Your task to perform on an android device: Add "logitech g pro" to the cart on target.com Image 0: 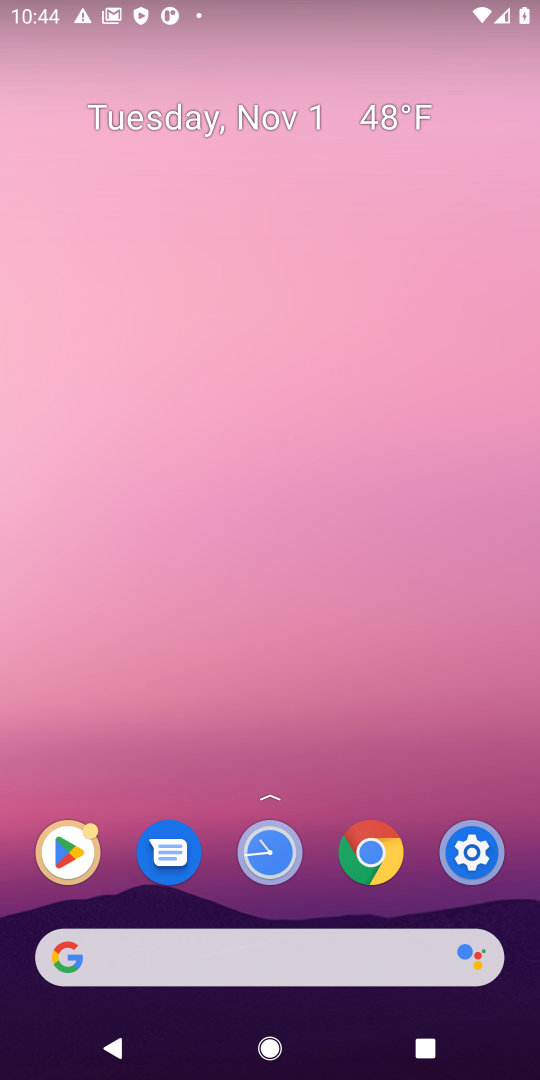
Step 0: click (221, 947)
Your task to perform on an android device: Add "logitech g pro" to the cart on target.com Image 1: 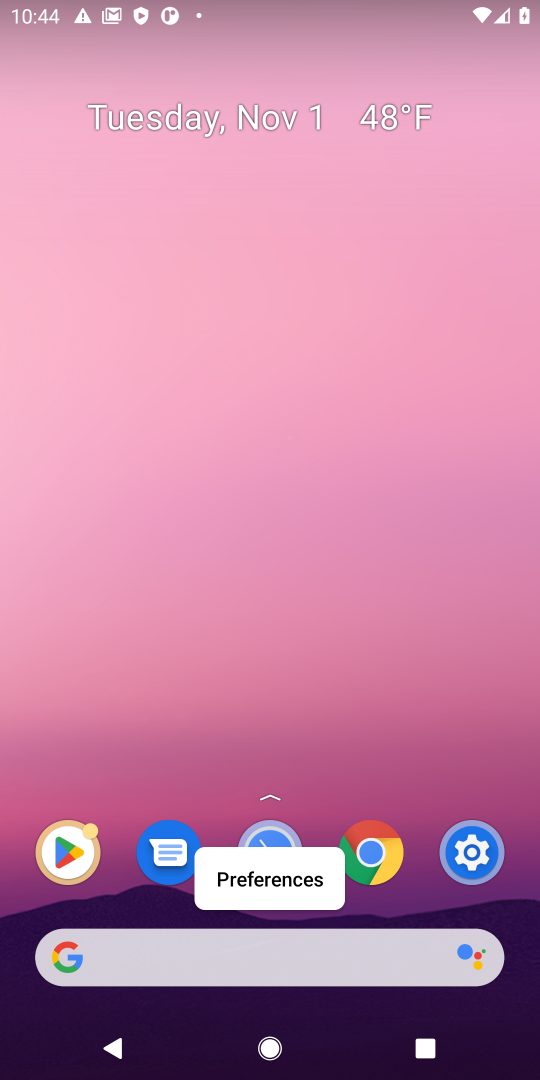
Step 1: click (117, 963)
Your task to perform on an android device: Add "logitech g pro" to the cart on target.com Image 2: 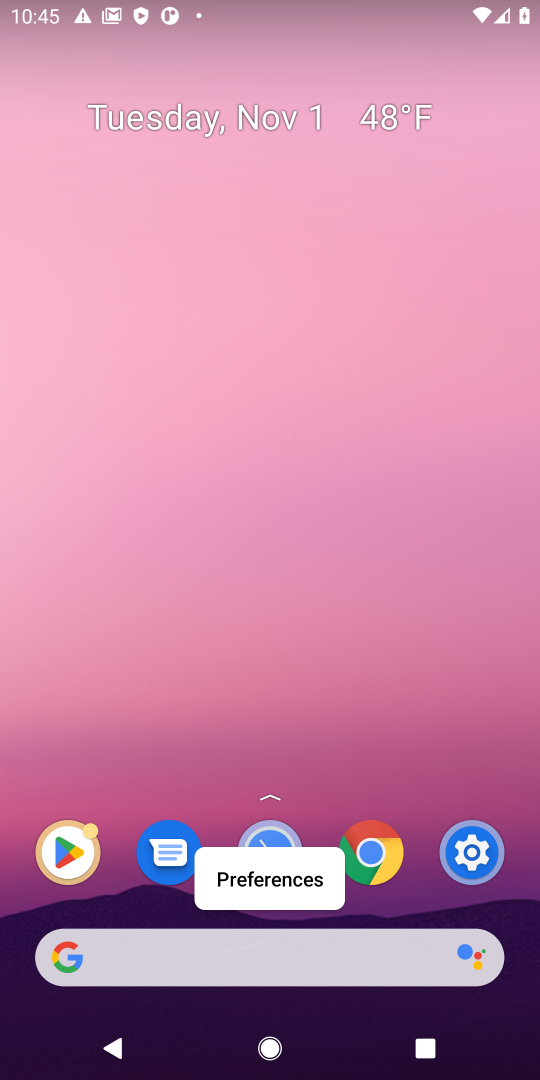
Step 2: click (347, 958)
Your task to perform on an android device: Add "logitech g pro" to the cart on target.com Image 3: 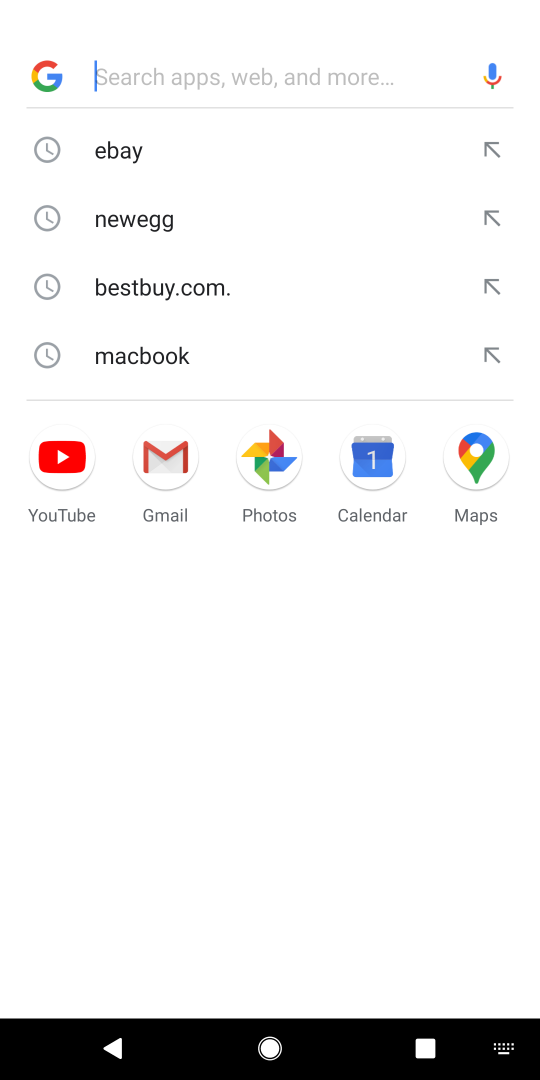
Step 3: click (347, 958)
Your task to perform on an android device: Add "logitech g pro" to the cart on target.com Image 4: 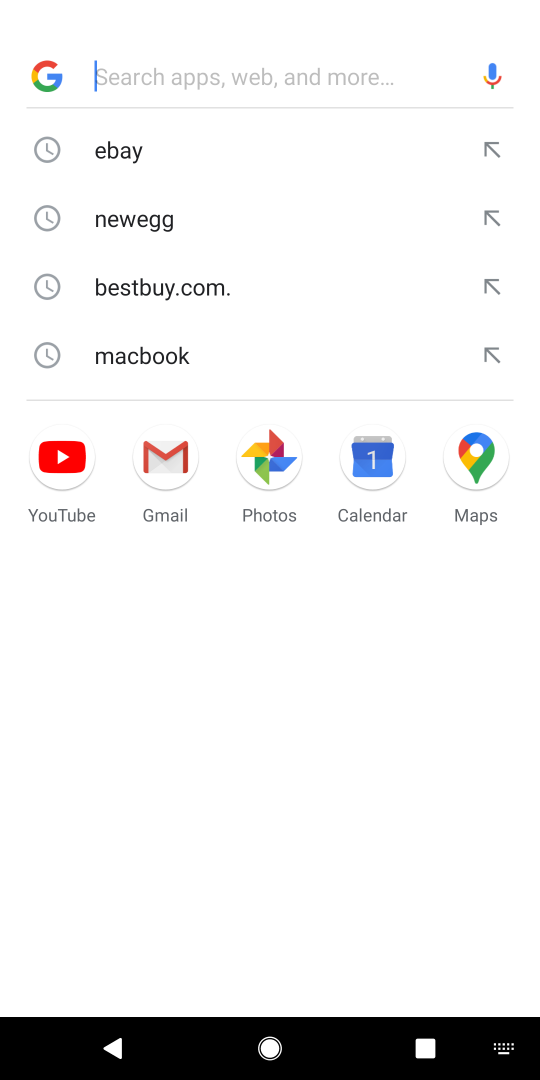
Step 4: type "target.com"
Your task to perform on an android device: Add "logitech g pro" to the cart on target.com Image 5: 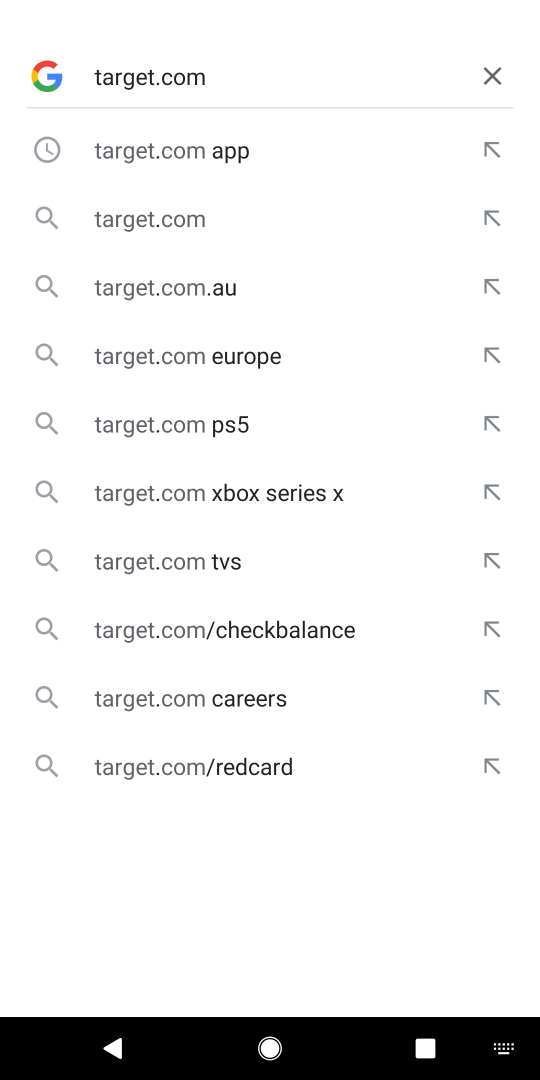
Step 5: type ""
Your task to perform on an android device: Add "logitech g pro" to the cart on target.com Image 6: 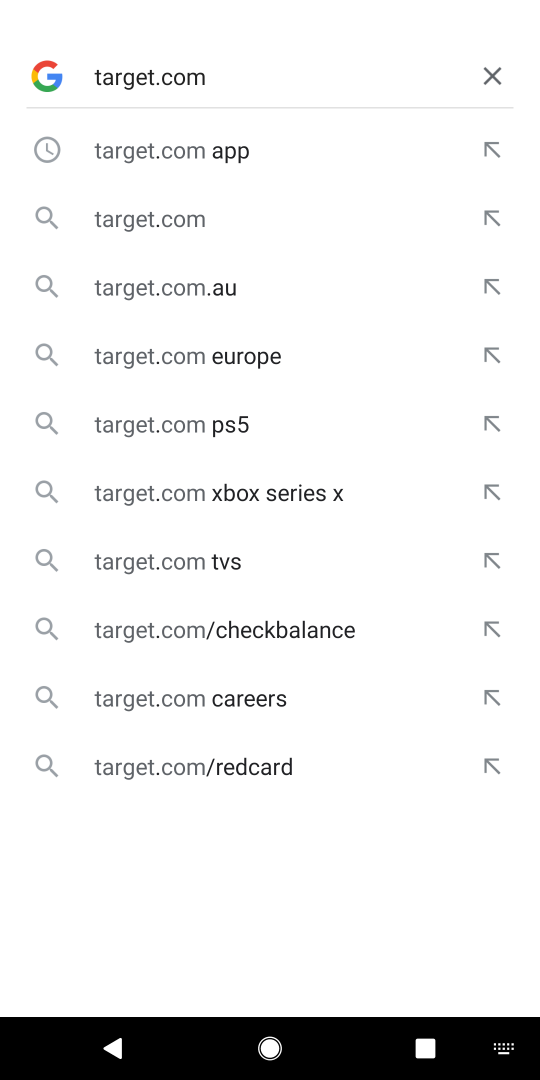
Step 6: press enter
Your task to perform on an android device: Add "logitech g pro" to the cart on target.com Image 7: 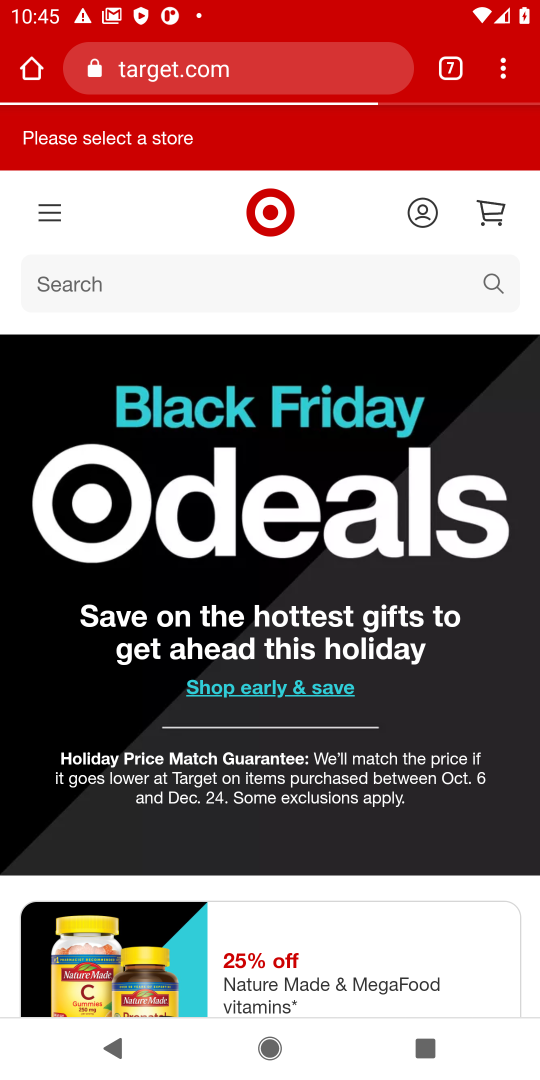
Step 7: click (285, 308)
Your task to perform on an android device: Add "logitech g pro" to the cart on target.com Image 8: 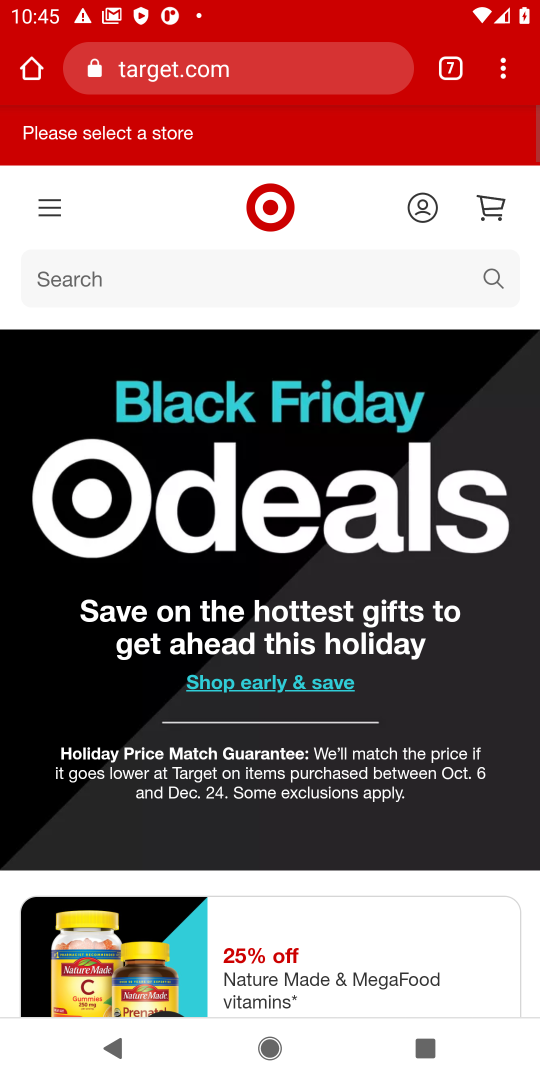
Step 8: click (277, 288)
Your task to perform on an android device: Add "logitech g pro" to the cart on target.com Image 9: 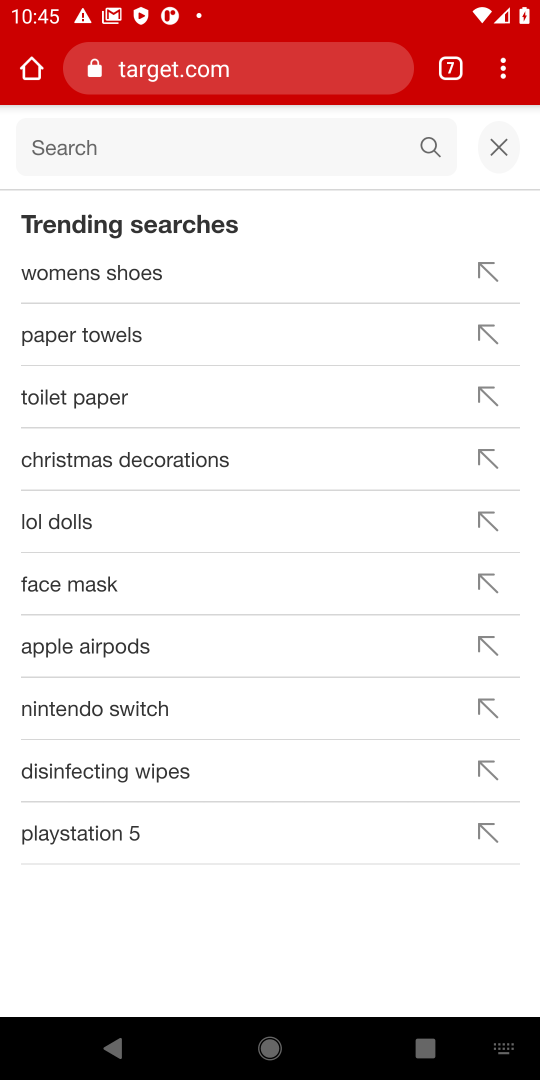
Step 9: type "logitech g pro"
Your task to perform on an android device: Add "logitech g pro" to the cart on target.com Image 10: 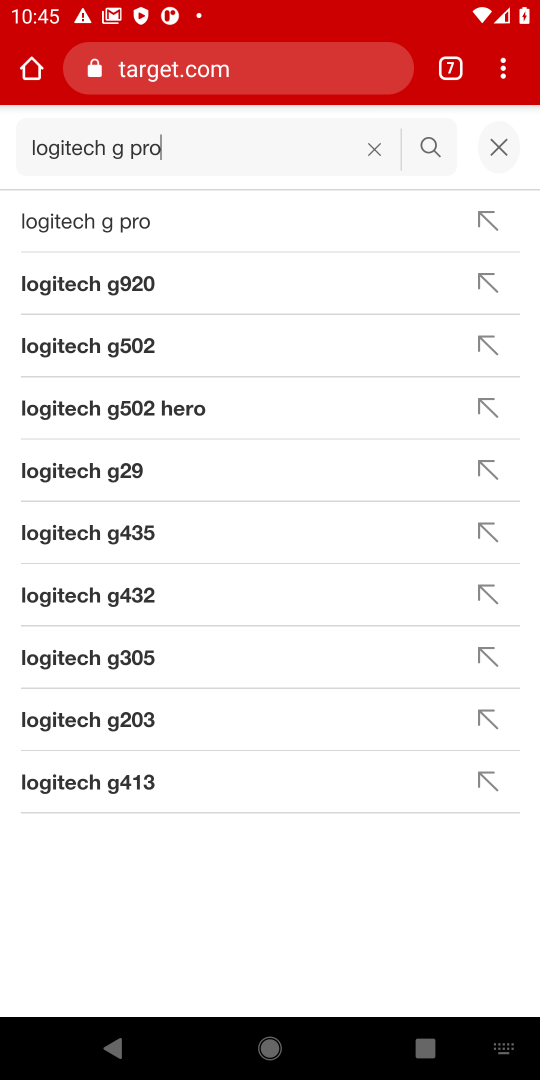
Step 10: type ""
Your task to perform on an android device: Add "logitech g pro" to the cart on target.com Image 11: 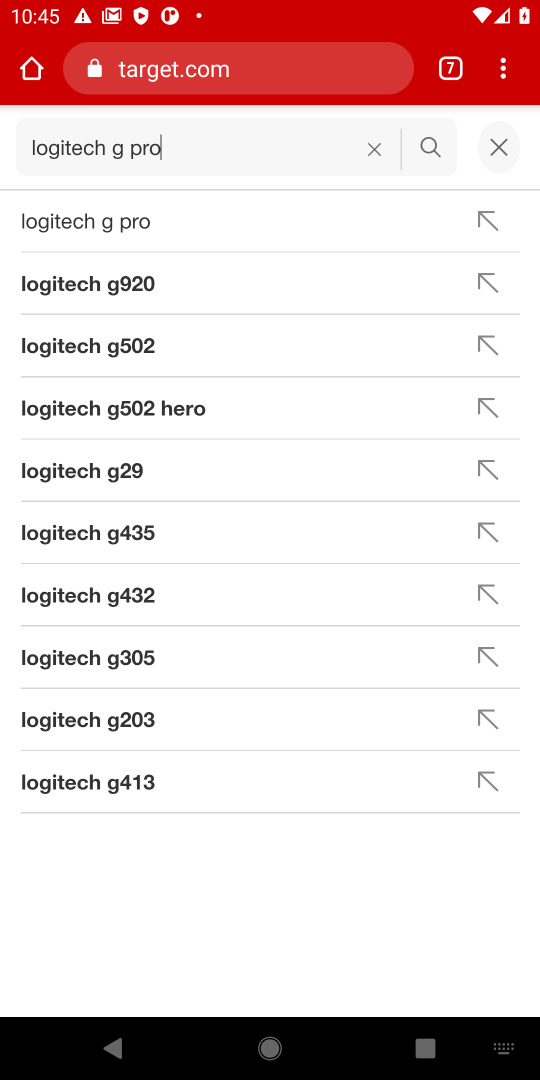
Step 11: press enter
Your task to perform on an android device: Add "logitech g pro" to the cart on target.com Image 12: 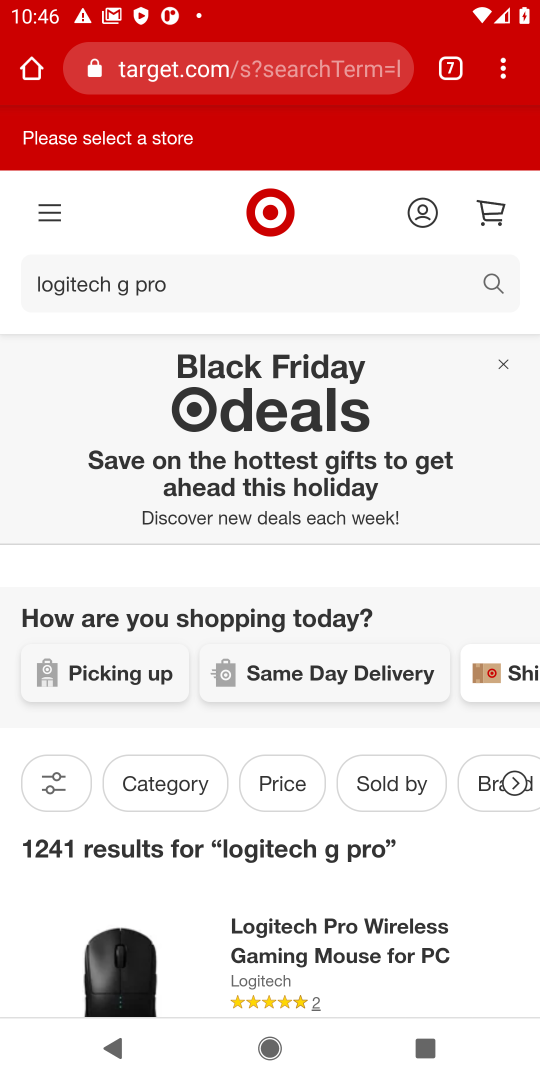
Step 12: drag from (477, 913) to (424, 510)
Your task to perform on an android device: Add "logitech g pro" to the cart on target.com Image 13: 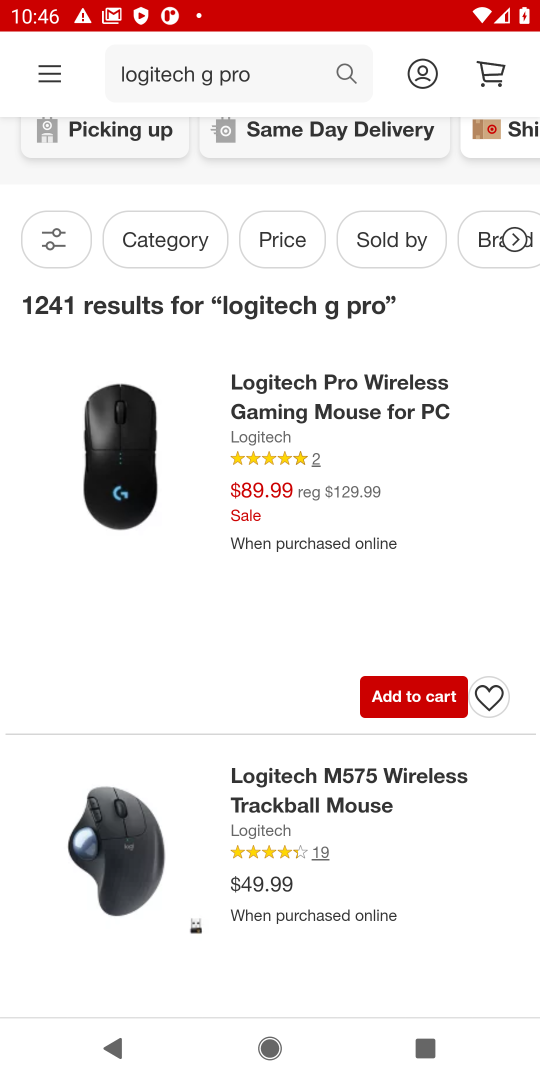
Step 13: click (304, 416)
Your task to perform on an android device: Add "logitech g pro" to the cart on target.com Image 14: 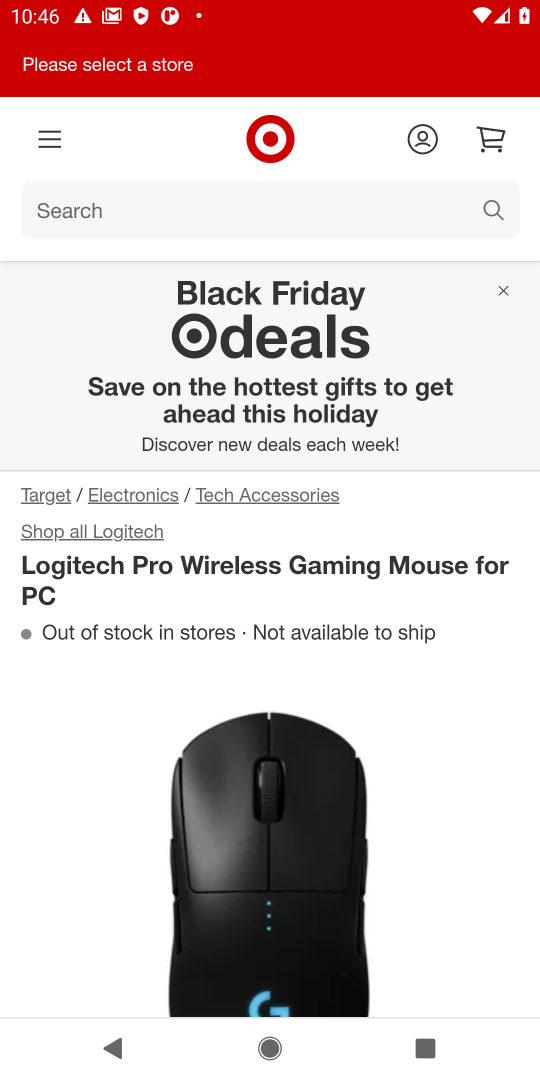
Step 14: drag from (510, 868) to (391, 381)
Your task to perform on an android device: Add "logitech g pro" to the cart on target.com Image 15: 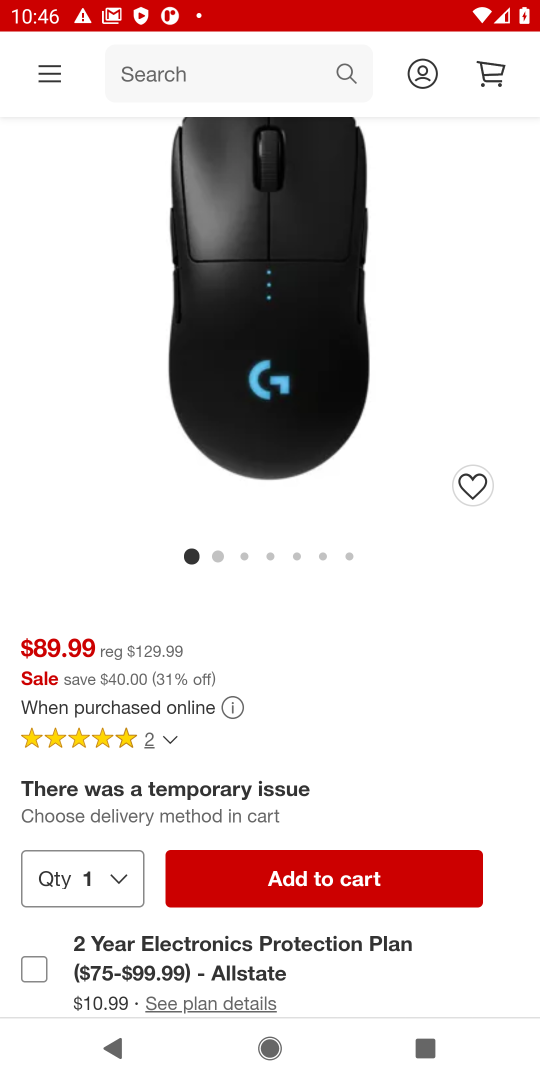
Step 15: click (327, 895)
Your task to perform on an android device: Add "logitech g pro" to the cart on target.com Image 16: 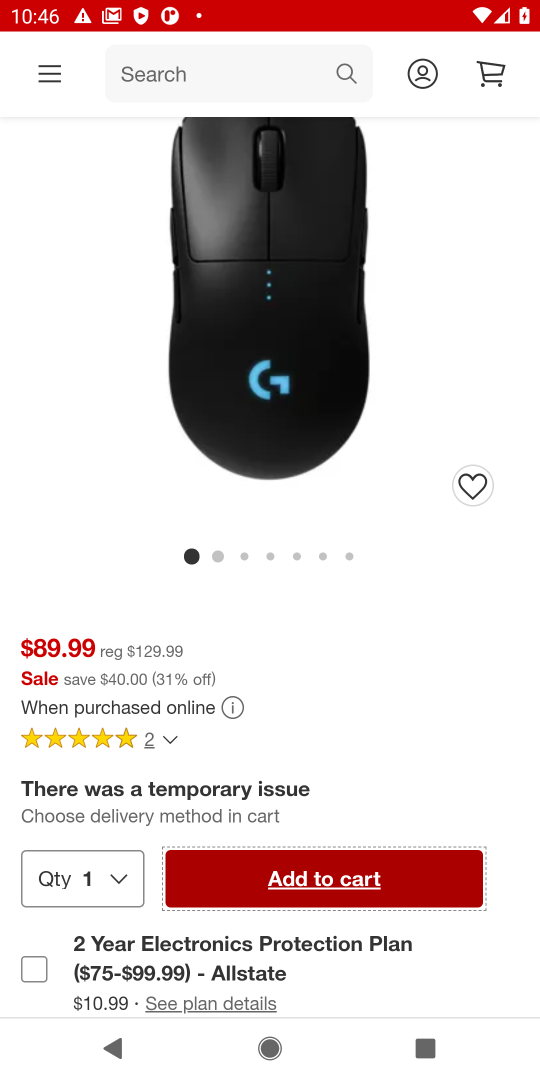
Step 16: click (315, 878)
Your task to perform on an android device: Add "logitech g pro" to the cart on target.com Image 17: 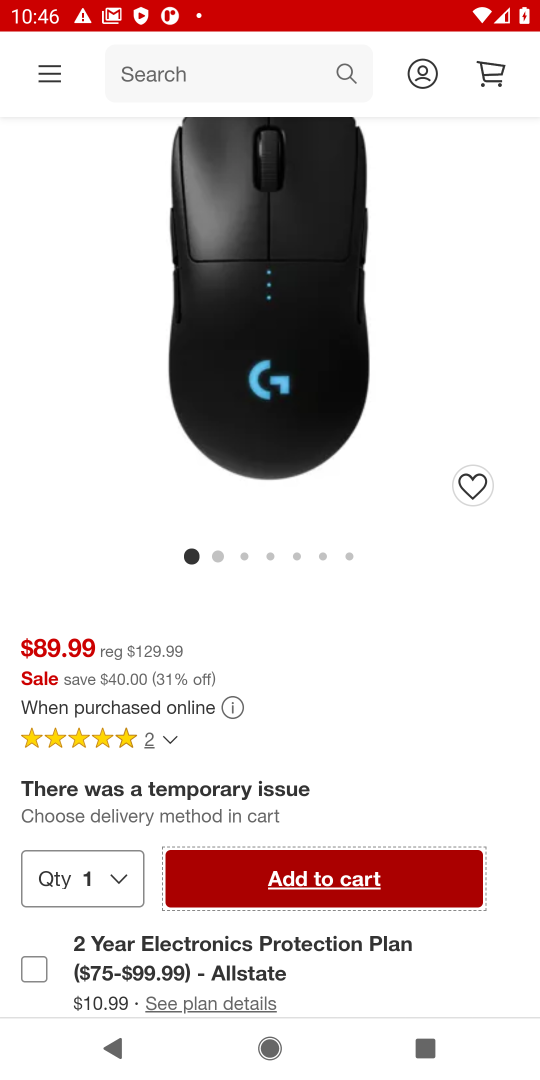
Step 17: click (323, 881)
Your task to perform on an android device: Add "logitech g pro" to the cart on target.com Image 18: 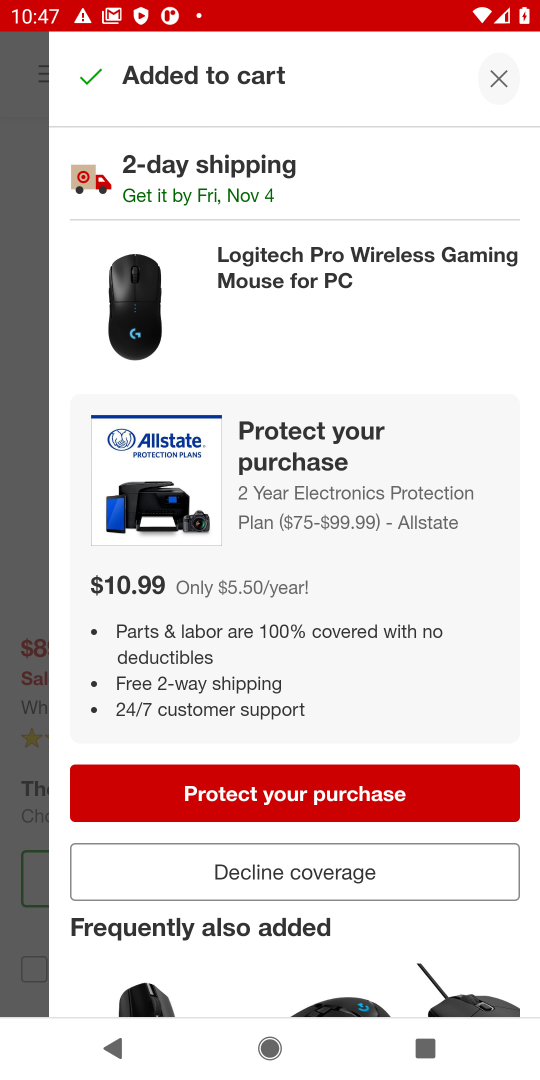
Step 18: drag from (424, 874) to (417, 227)
Your task to perform on an android device: Add "logitech g pro" to the cart on target.com Image 19: 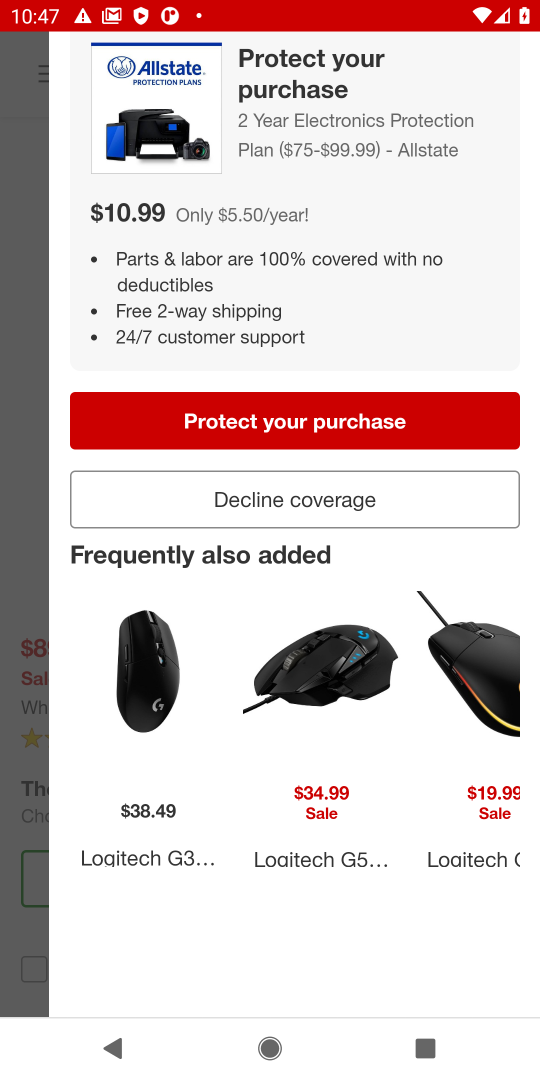
Step 19: click (399, 417)
Your task to perform on an android device: Add "logitech g pro" to the cart on target.com Image 20: 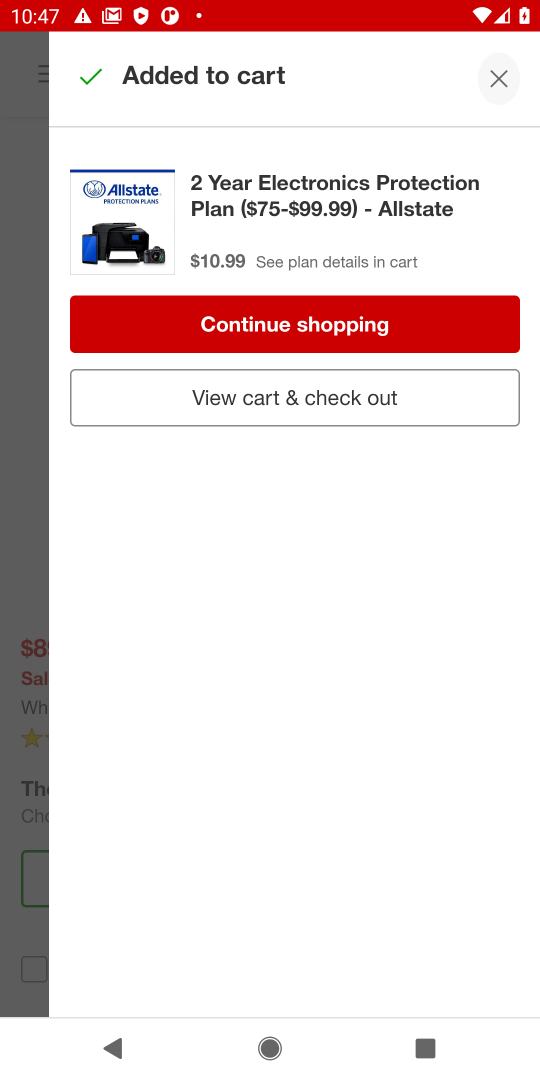
Step 20: task complete